Your task to perform on an android device: open chrome and create a bookmark for the current page Image 0: 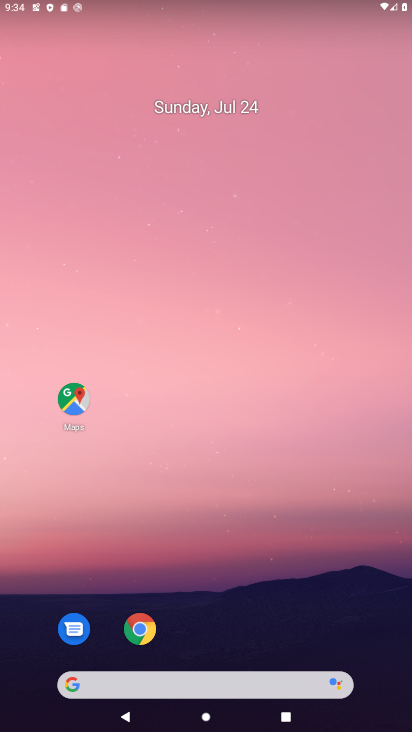
Step 0: click (152, 640)
Your task to perform on an android device: open chrome and create a bookmark for the current page Image 1: 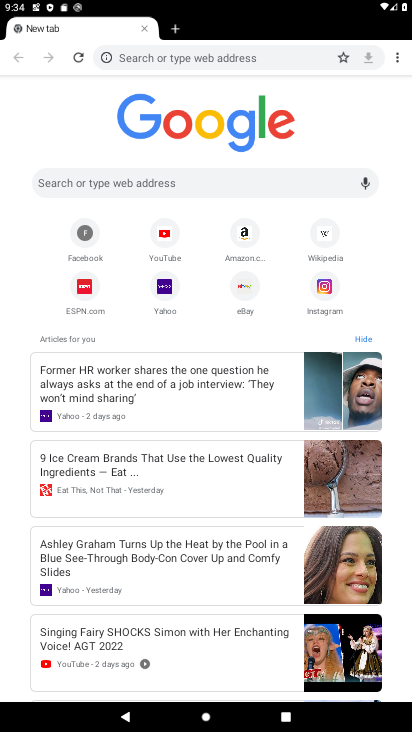
Step 1: click (394, 58)
Your task to perform on an android device: open chrome and create a bookmark for the current page Image 2: 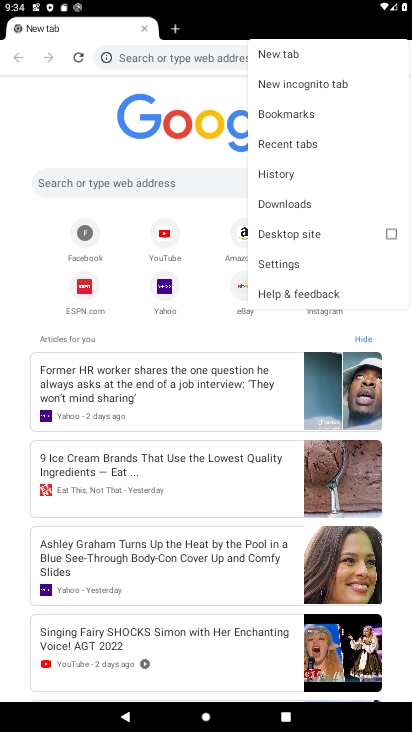
Step 2: click (284, 259)
Your task to perform on an android device: open chrome and create a bookmark for the current page Image 3: 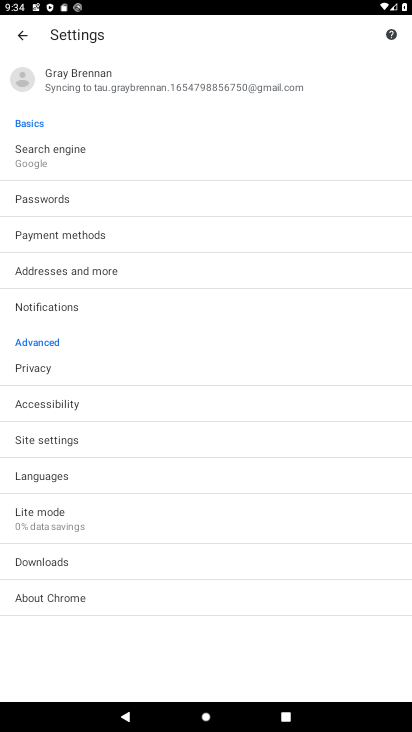
Step 3: click (23, 40)
Your task to perform on an android device: open chrome and create a bookmark for the current page Image 4: 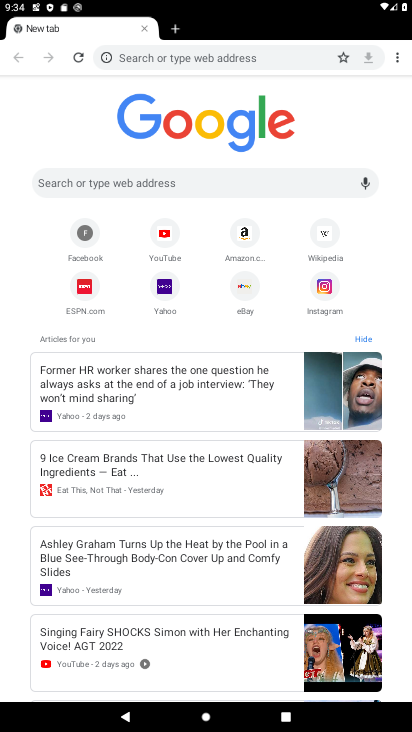
Step 4: click (397, 59)
Your task to perform on an android device: open chrome and create a bookmark for the current page Image 5: 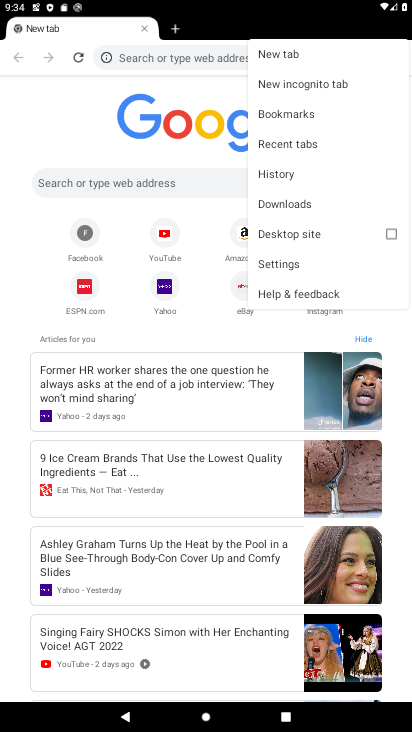
Step 5: click (285, 117)
Your task to perform on an android device: open chrome and create a bookmark for the current page Image 6: 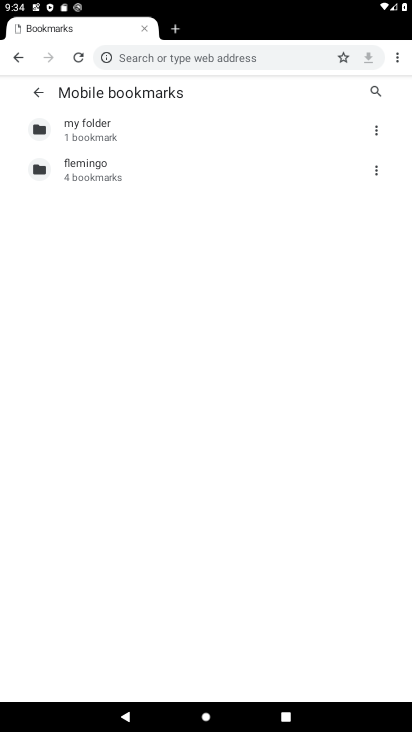
Step 6: task complete